Your task to perform on an android device: check google app version Image 0: 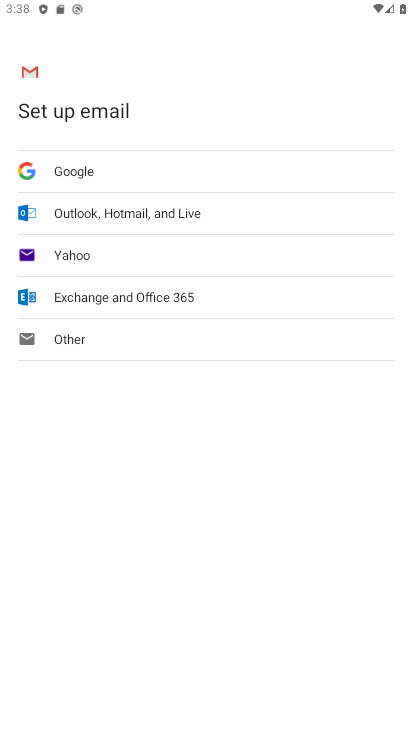
Step 0: press back button
Your task to perform on an android device: check google app version Image 1: 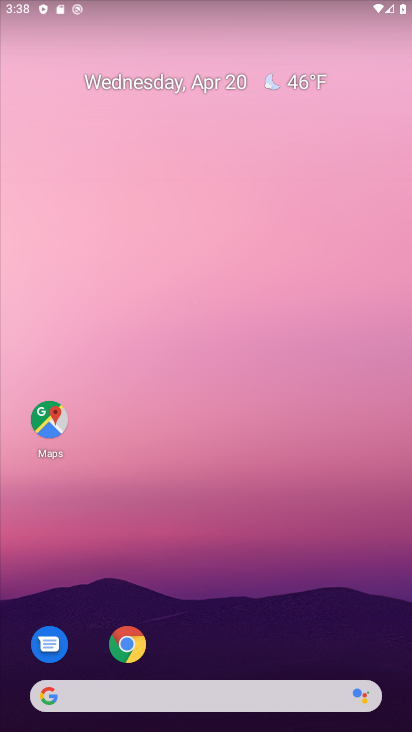
Step 1: drag from (213, 678) to (304, 173)
Your task to perform on an android device: check google app version Image 2: 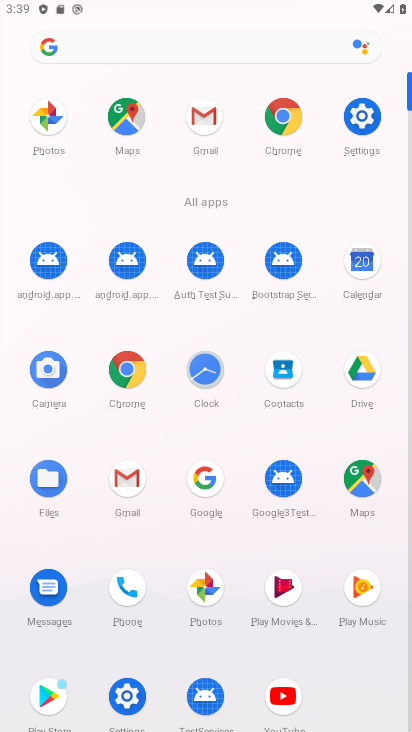
Step 2: click (124, 706)
Your task to perform on an android device: check google app version Image 3: 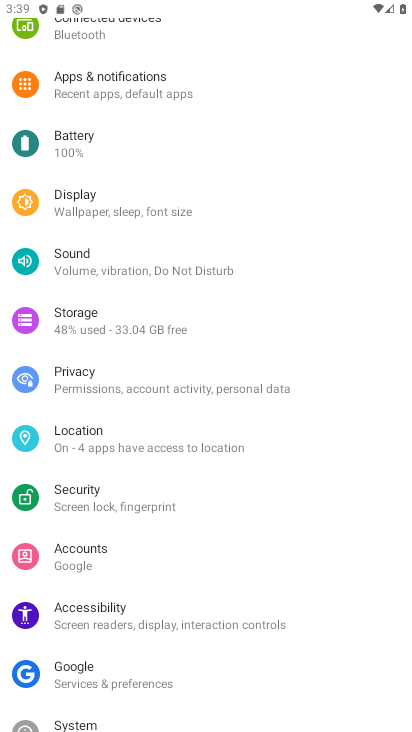
Step 3: click (152, 94)
Your task to perform on an android device: check google app version Image 4: 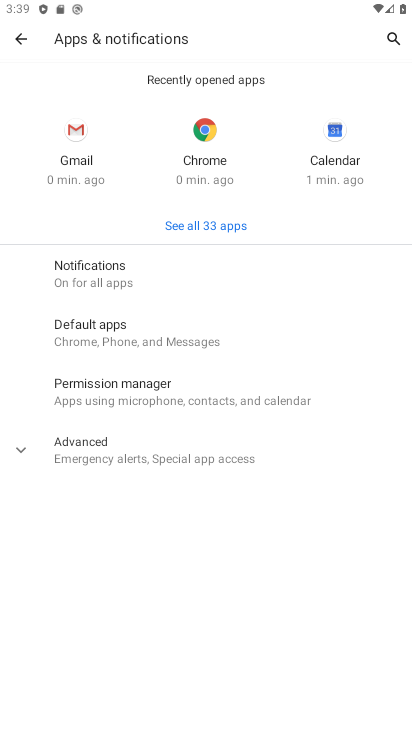
Step 4: click (213, 230)
Your task to perform on an android device: check google app version Image 5: 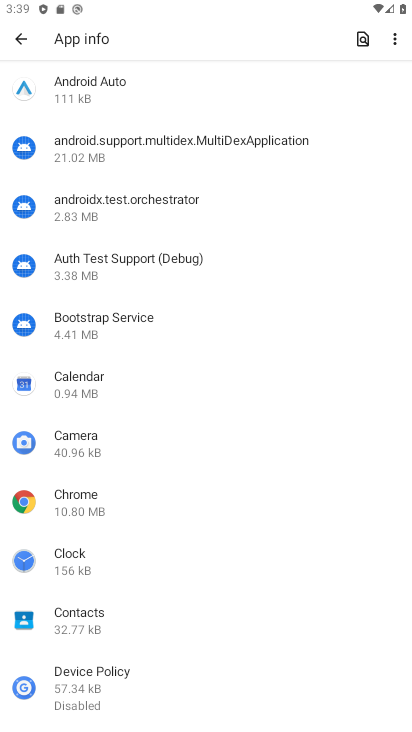
Step 5: drag from (190, 598) to (287, 215)
Your task to perform on an android device: check google app version Image 6: 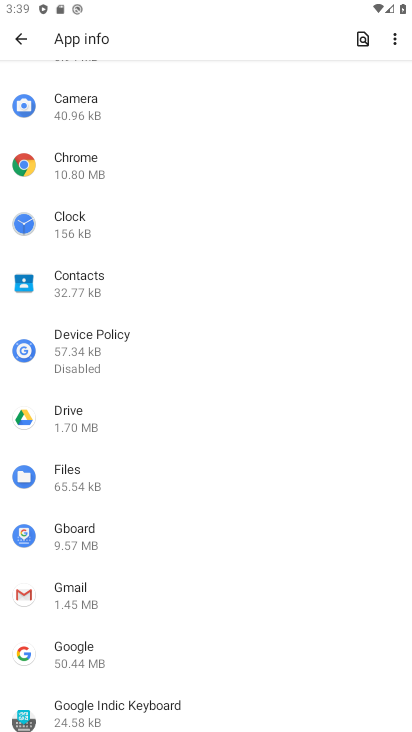
Step 6: click (103, 654)
Your task to perform on an android device: check google app version Image 7: 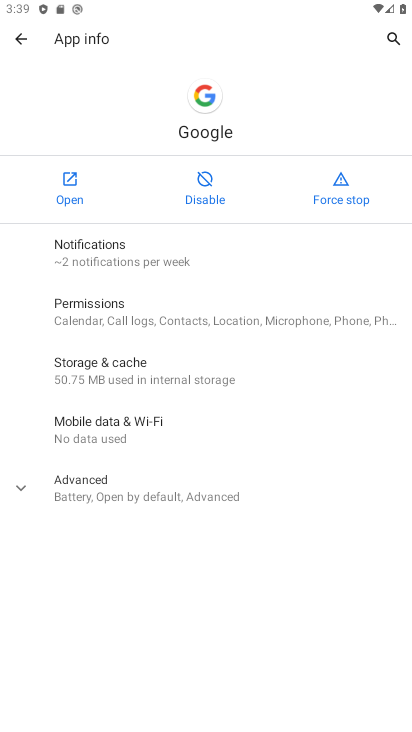
Step 7: task complete